Your task to perform on an android device: delete the emails in spam in the gmail app Image 0: 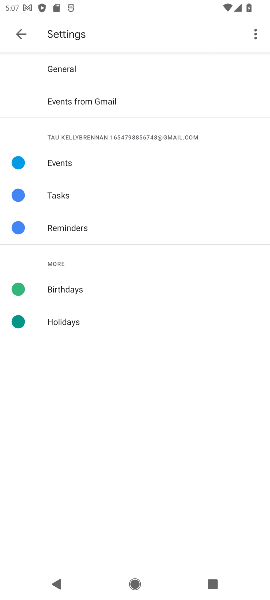
Step 0: press home button
Your task to perform on an android device: delete the emails in spam in the gmail app Image 1: 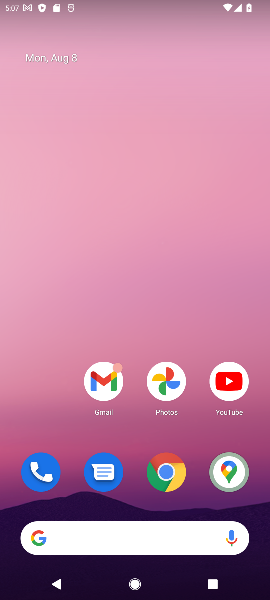
Step 1: click (102, 377)
Your task to perform on an android device: delete the emails in spam in the gmail app Image 2: 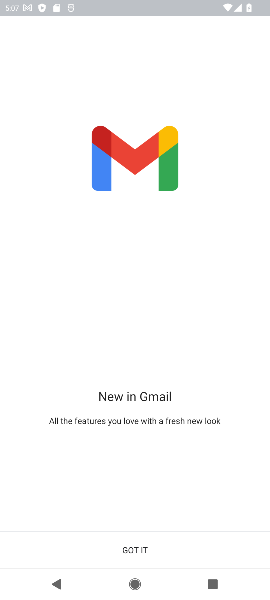
Step 2: click (147, 546)
Your task to perform on an android device: delete the emails in spam in the gmail app Image 3: 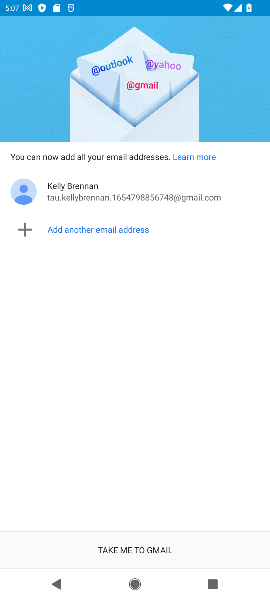
Step 3: click (146, 545)
Your task to perform on an android device: delete the emails in spam in the gmail app Image 4: 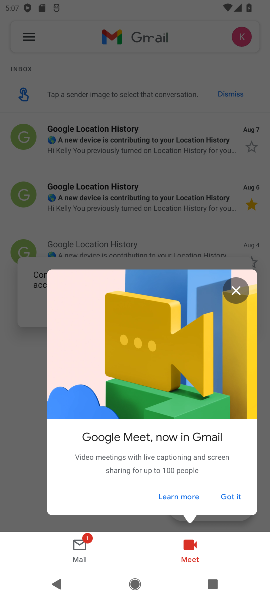
Step 4: click (239, 294)
Your task to perform on an android device: delete the emails in spam in the gmail app Image 5: 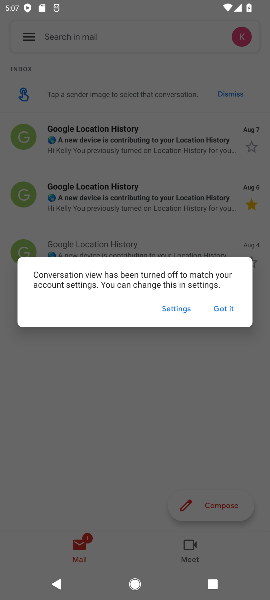
Step 5: click (231, 307)
Your task to perform on an android device: delete the emails in spam in the gmail app Image 6: 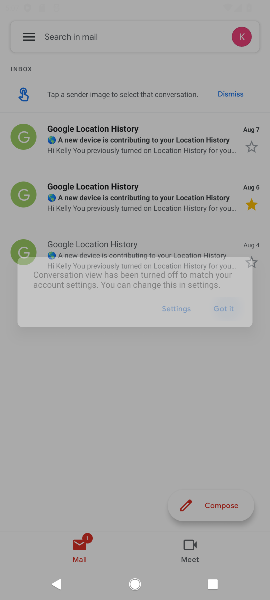
Step 6: click (224, 308)
Your task to perform on an android device: delete the emails in spam in the gmail app Image 7: 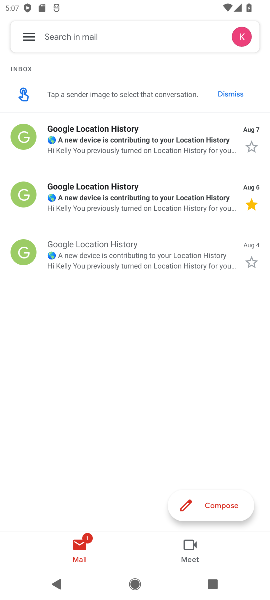
Step 7: click (28, 36)
Your task to perform on an android device: delete the emails in spam in the gmail app Image 8: 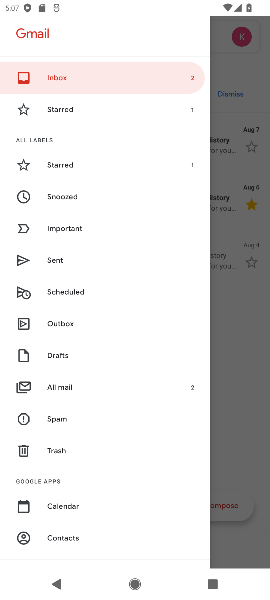
Step 8: click (71, 418)
Your task to perform on an android device: delete the emails in spam in the gmail app Image 9: 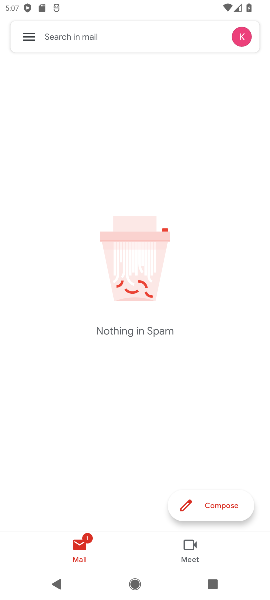
Step 9: task complete